Your task to perform on an android device: Open Google Maps and go to "Timeline" Image 0: 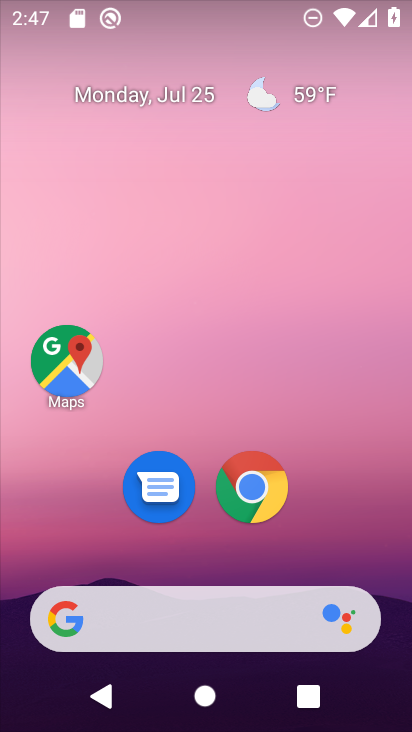
Step 0: click (58, 351)
Your task to perform on an android device: Open Google Maps and go to "Timeline" Image 1: 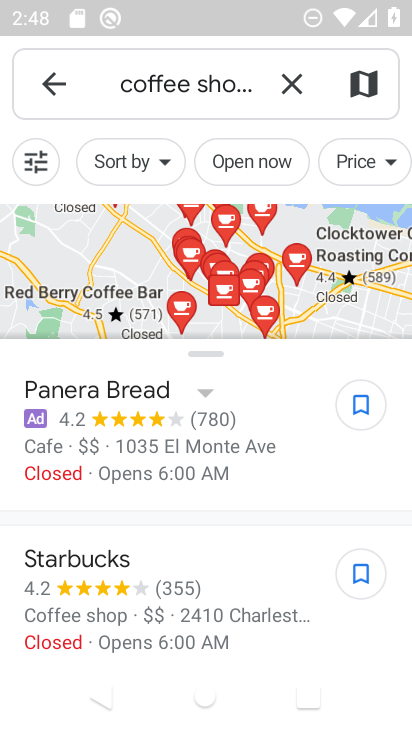
Step 1: click (56, 79)
Your task to perform on an android device: Open Google Maps and go to "Timeline" Image 2: 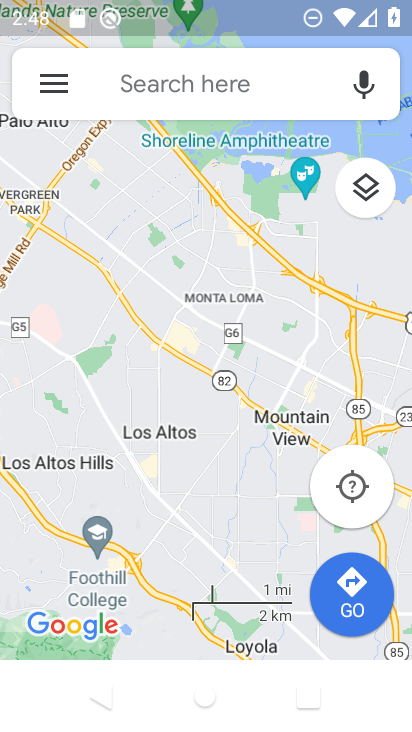
Step 2: click (64, 88)
Your task to perform on an android device: Open Google Maps and go to "Timeline" Image 3: 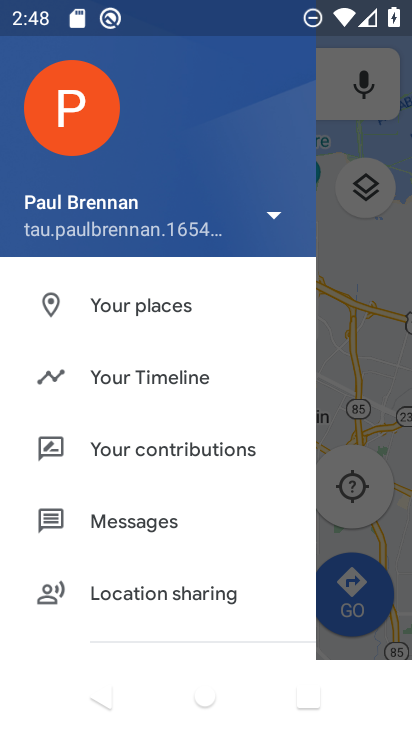
Step 3: click (113, 379)
Your task to perform on an android device: Open Google Maps and go to "Timeline" Image 4: 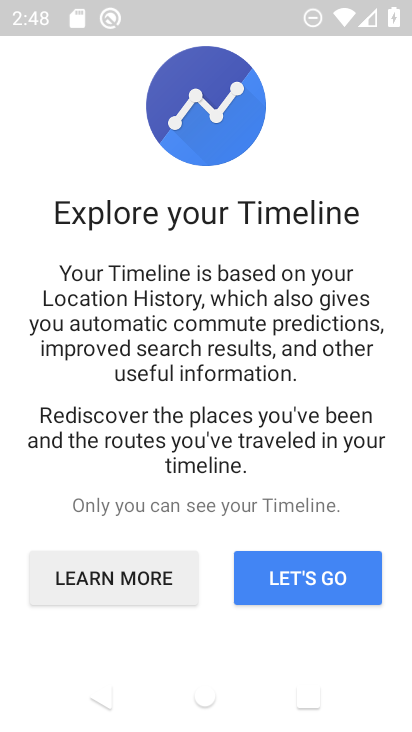
Step 4: click (297, 569)
Your task to perform on an android device: Open Google Maps and go to "Timeline" Image 5: 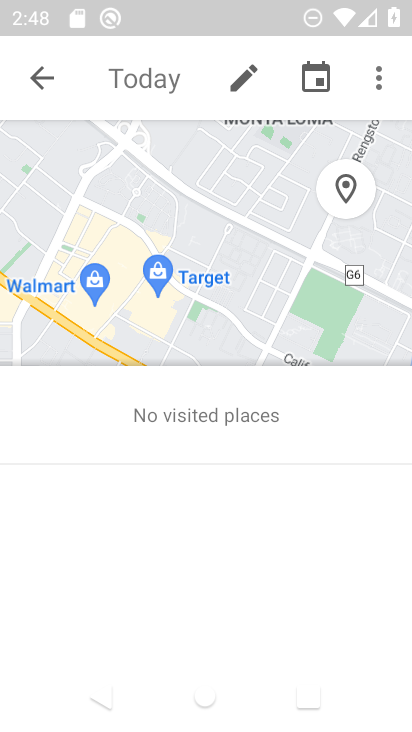
Step 5: click (47, 74)
Your task to perform on an android device: Open Google Maps and go to "Timeline" Image 6: 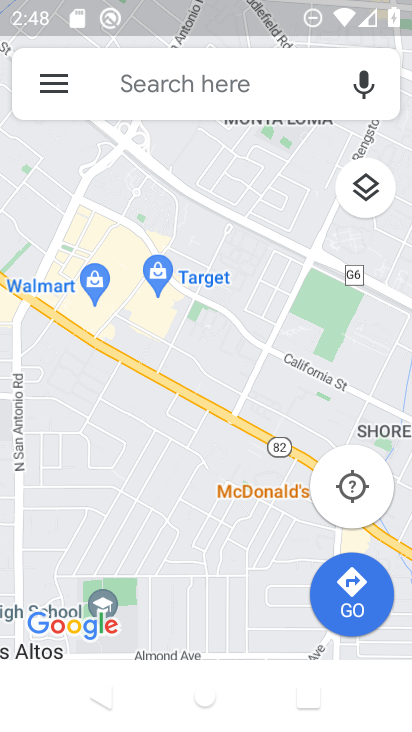
Step 6: click (41, 89)
Your task to perform on an android device: Open Google Maps and go to "Timeline" Image 7: 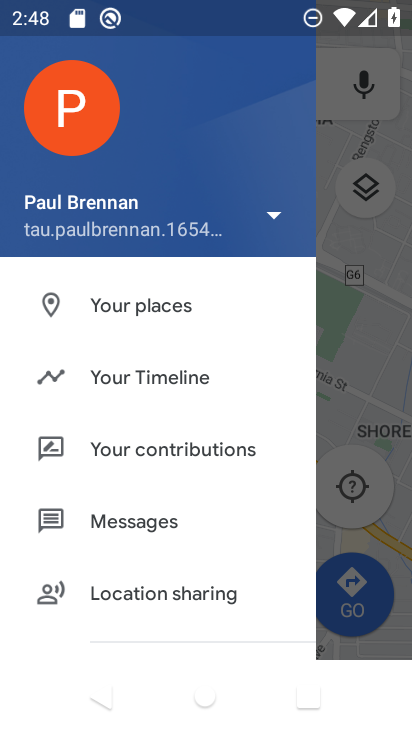
Step 7: click (172, 389)
Your task to perform on an android device: Open Google Maps and go to "Timeline" Image 8: 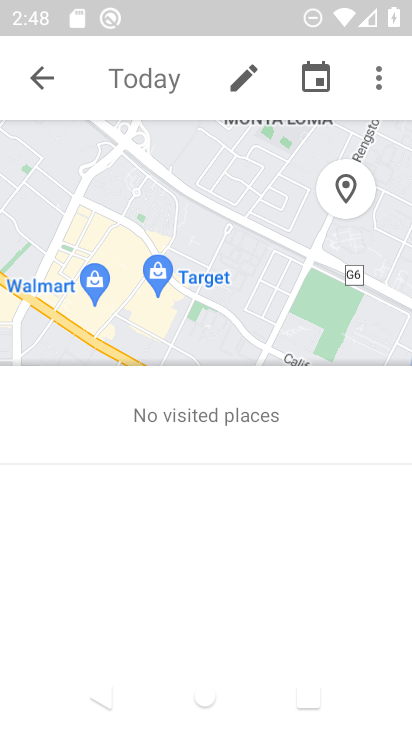
Step 8: task complete